Your task to perform on an android device: open chrome and create a bookmark for the current page Image 0: 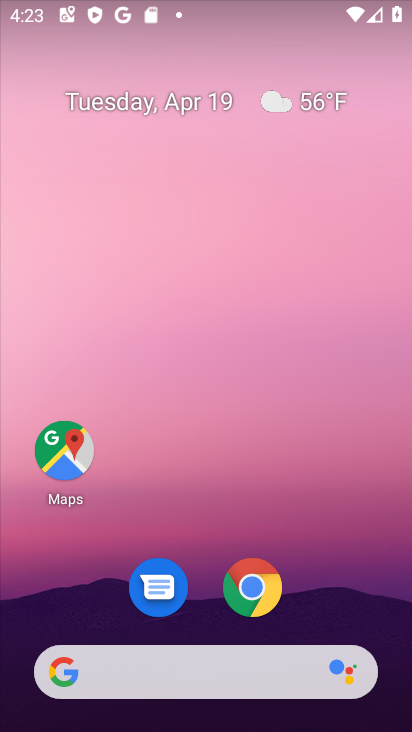
Step 0: click (246, 587)
Your task to perform on an android device: open chrome and create a bookmark for the current page Image 1: 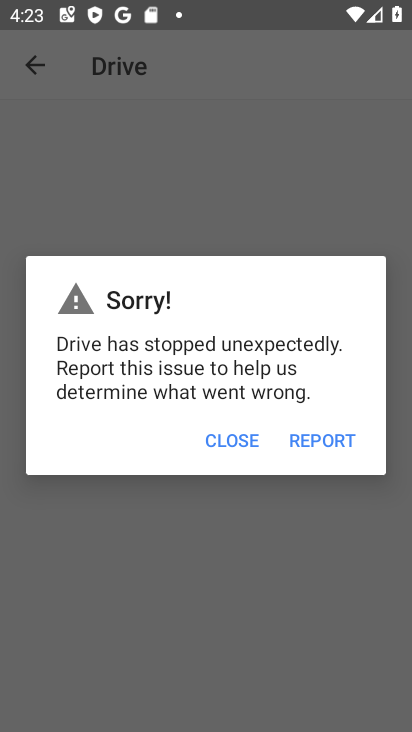
Step 1: press home button
Your task to perform on an android device: open chrome and create a bookmark for the current page Image 2: 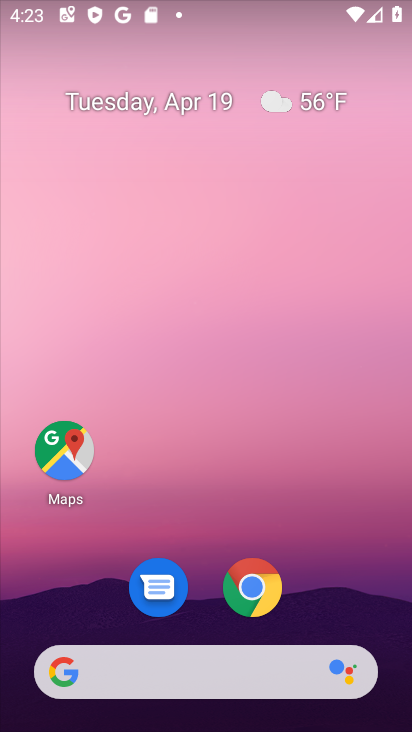
Step 2: click (258, 589)
Your task to perform on an android device: open chrome and create a bookmark for the current page Image 3: 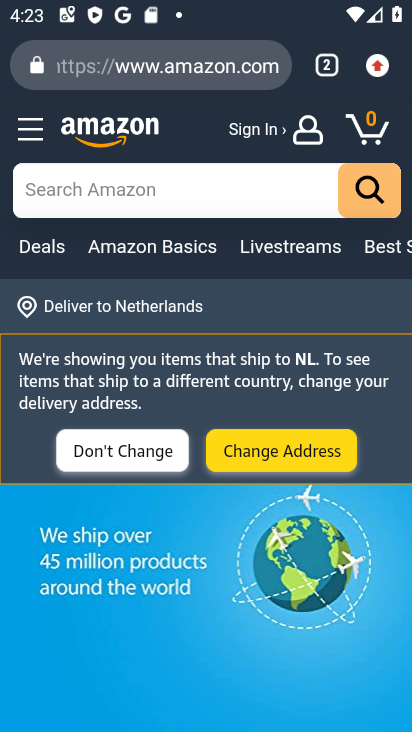
Step 3: click (380, 61)
Your task to perform on an android device: open chrome and create a bookmark for the current page Image 4: 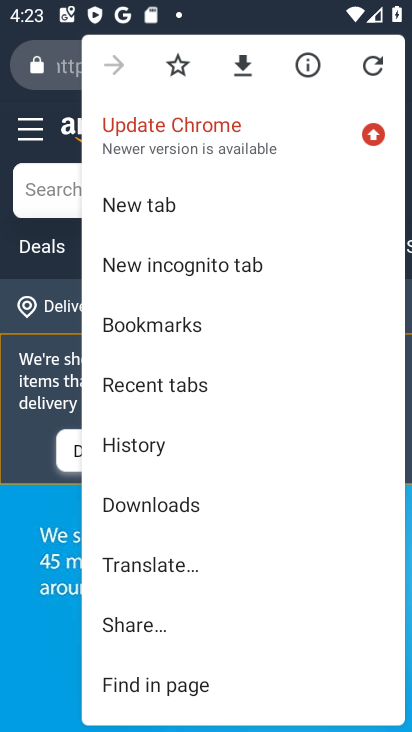
Step 4: click (172, 63)
Your task to perform on an android device: open chrome and create a bookmark for the current page Image 5: 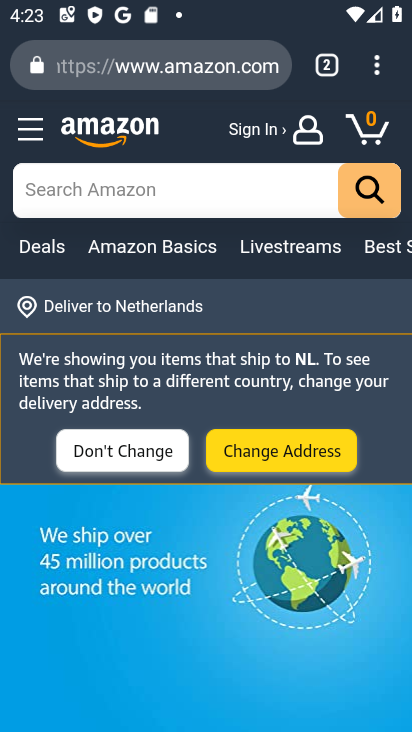
Step 5: task complete